Your task to perform on an android device: toggle location history Image 0: 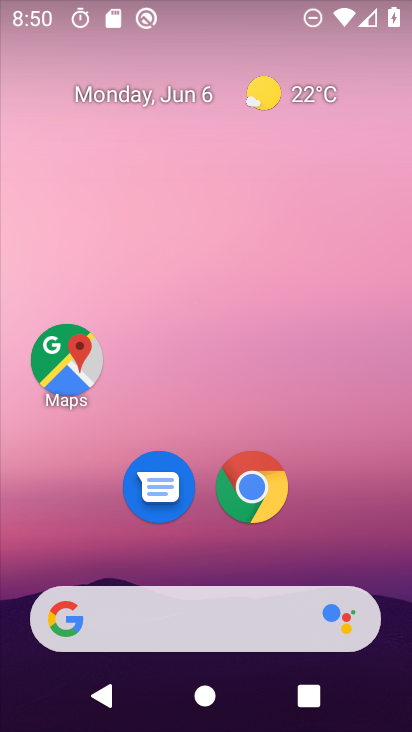
Step 0: click (395, 612)
Your task to perform on an android device: toggle location history Image 1: 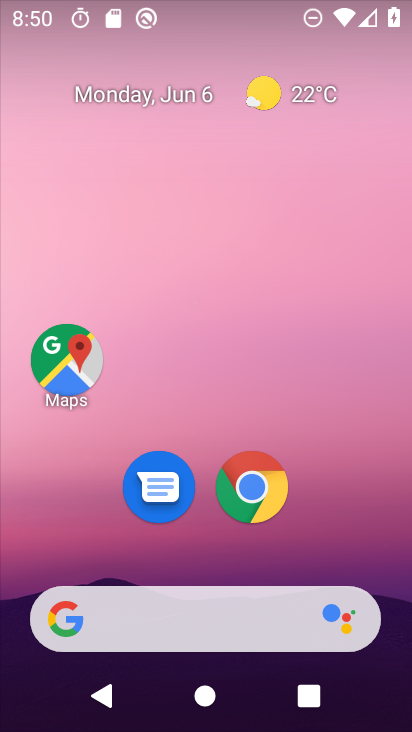
Step 1: drag from (379, 287) to (348, 181)
Your task to perform on an android device: toggle location history Image 2: 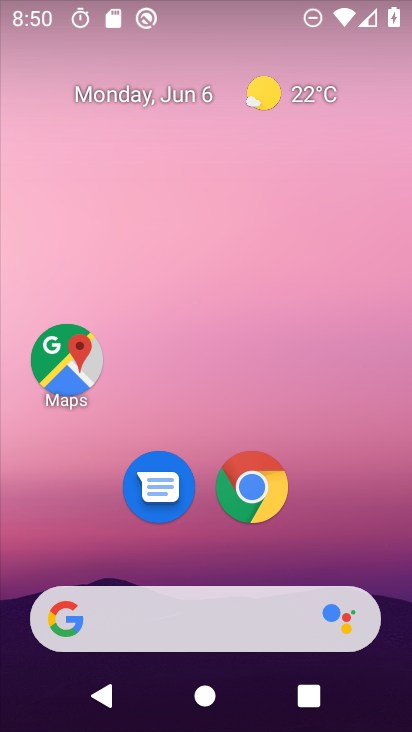
Step 2: drag from (398, 621) to (269, 0)
Your task to perform on an android device: toggle location history Image 3: 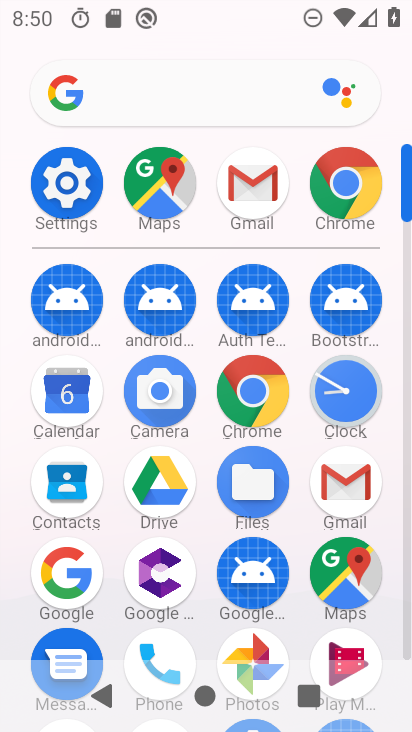
Step 3: click (64, 206)
Your task to perform on an android device: toggle location history Image 4: 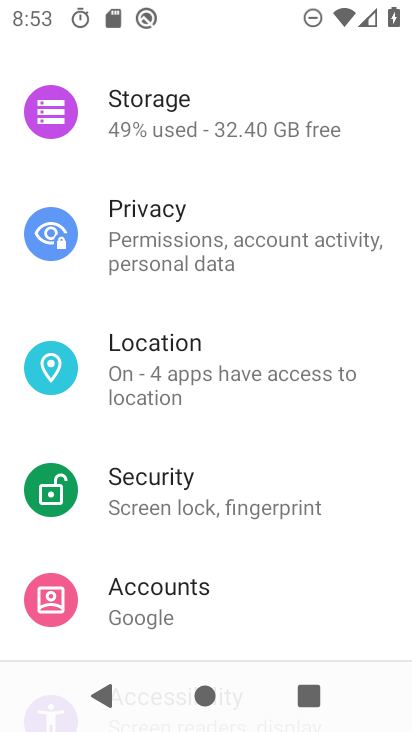
Step 4: click (278, 382)
Your task to perform on an android device: toggle location history Image 5: 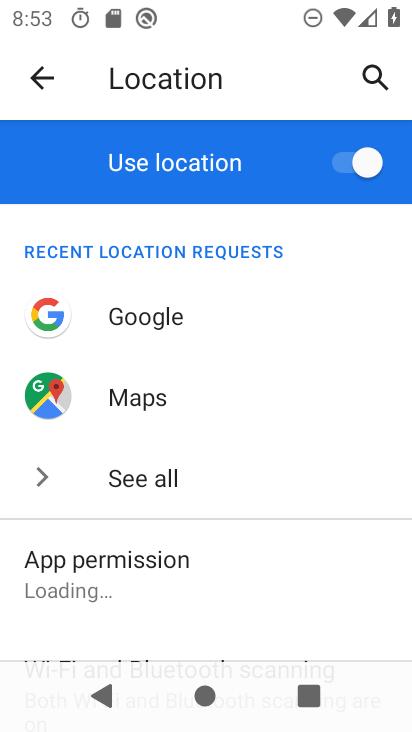
Step 5: drag from (207, 580) to (217, 147)
Your task to perform on an android device: toggle location history Image 6: 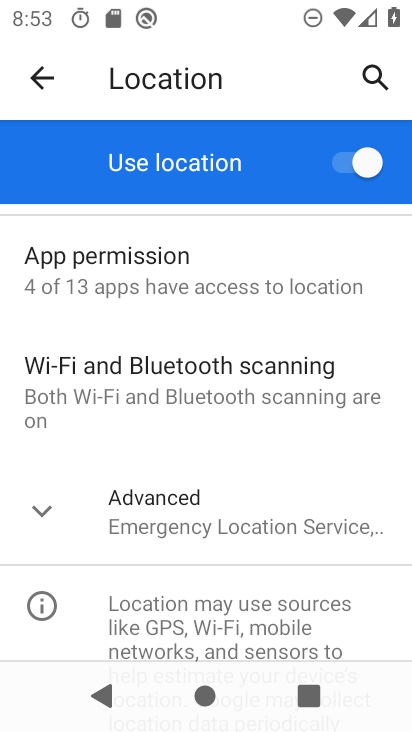
Step 6: click (155, 504)
Your task to perform on an android device: toggle location history Image 7: 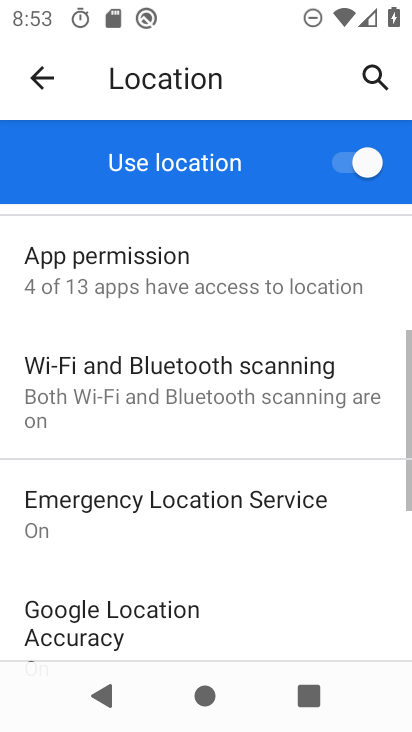
Step 7: drag from (237, 638) to (261, 281)
Your task to perform on an android device: toggle location history Image 8: 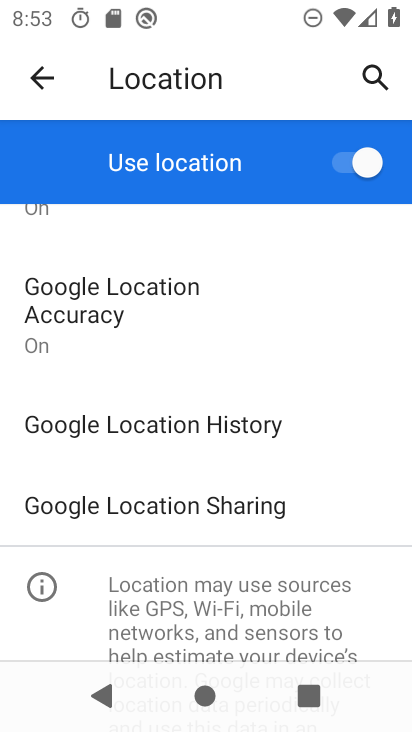
Step 8: click (217, 416)
Your task to perform on an android device: toggle location history Image 9: 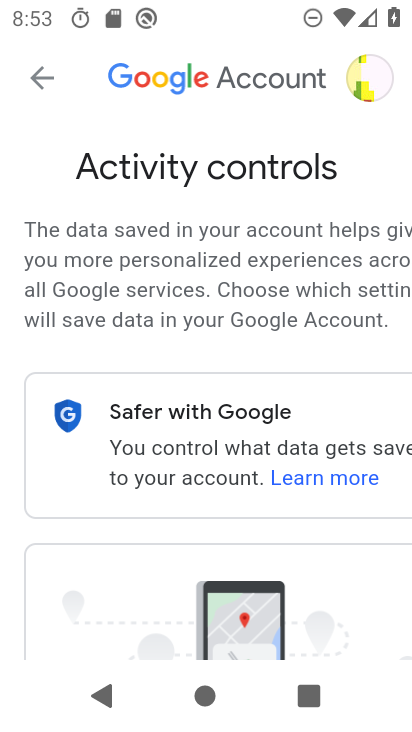
Step 9: drag from (357, 619) to (236, 153)
Your task to perform on an android device: toggle location history Image 10: 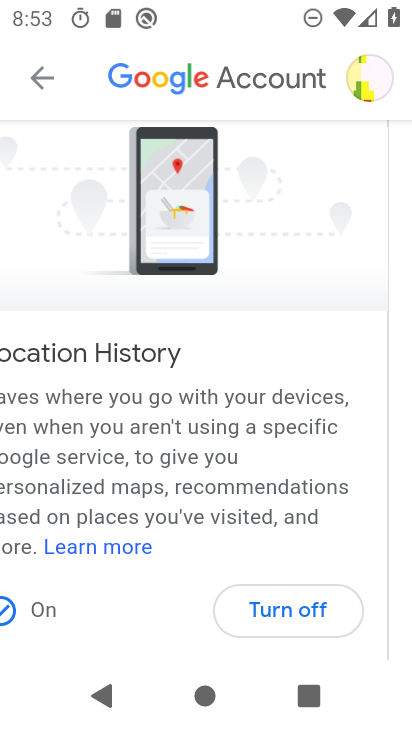
Step 10: click (281, 607)
Your task to perform on an android device: toggle location history Image 11: 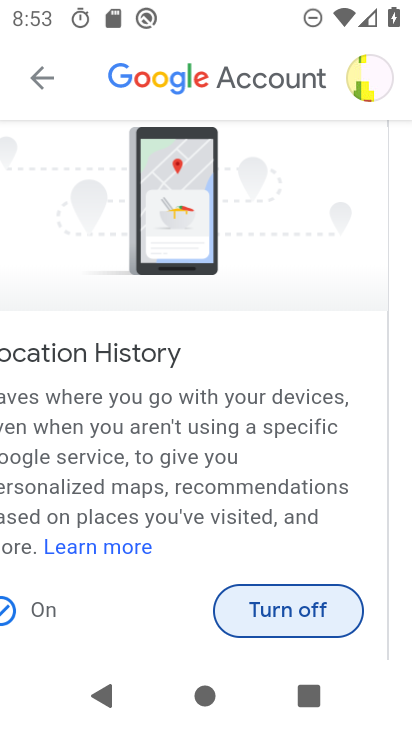
Step 11: click (261, 594)
Your task to perform on an android device: toggle location history Image 12: 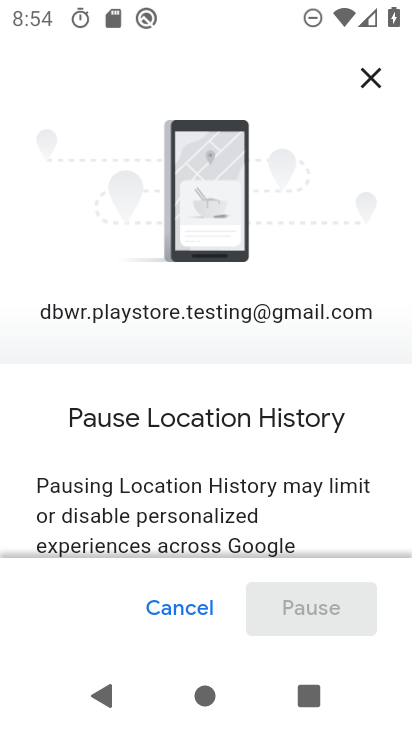
Step 12: task complete